Your task to perform on an android device: check battery use Image 0: 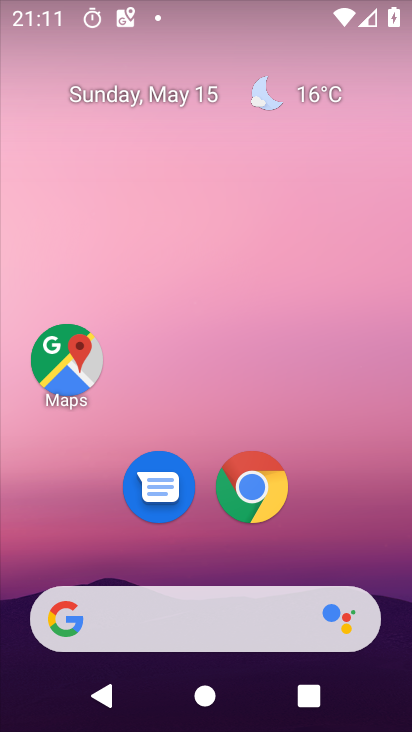
Step 0: click (399, 647)
Your task to perform on an android device: check battery use Image 1: 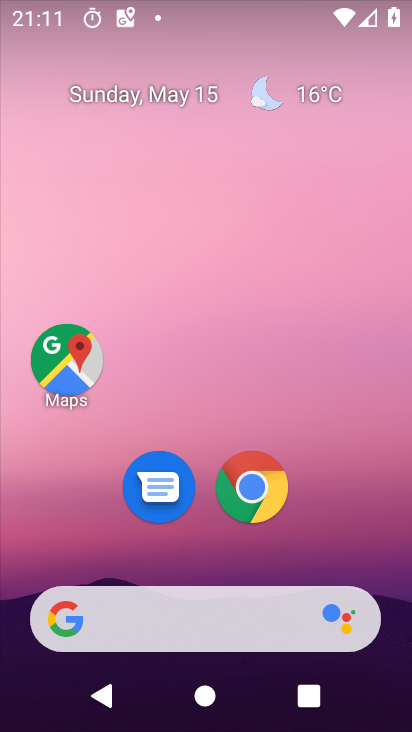
Step 1: drag from (395, 651) to (376, 285)
Your task to perform on an android device: check battery use Image 2: 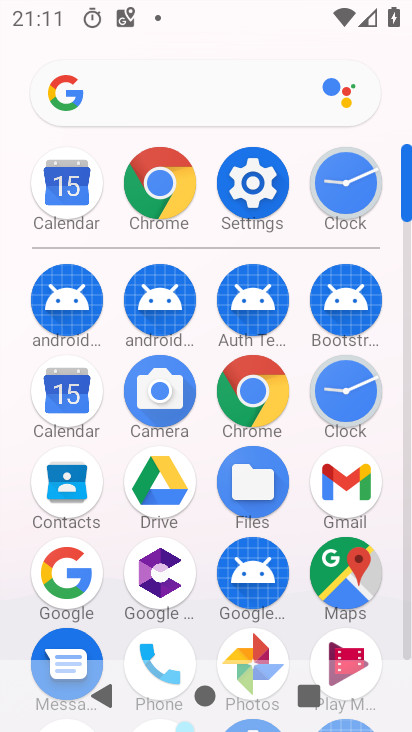
Step 2: click (245, 184)
Your task to perform on an android device: check battery use Image 3: 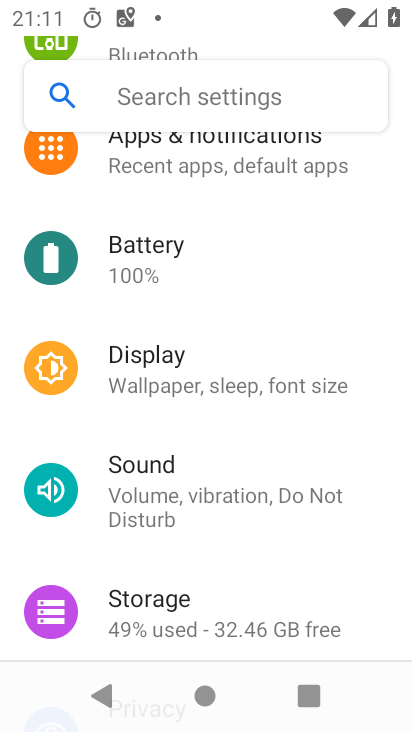
Step 3: click (145, 259)
Your task to perform on an android device: check battery use Image 4: 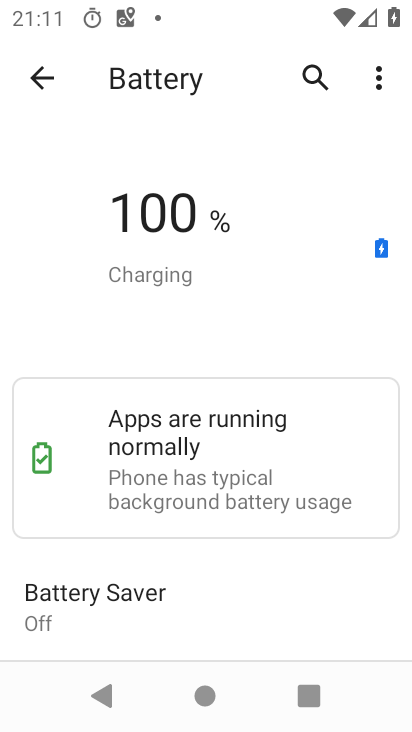
Step 4: click (379, 71)
Your task to perform on an android device: check battery use Image 5: 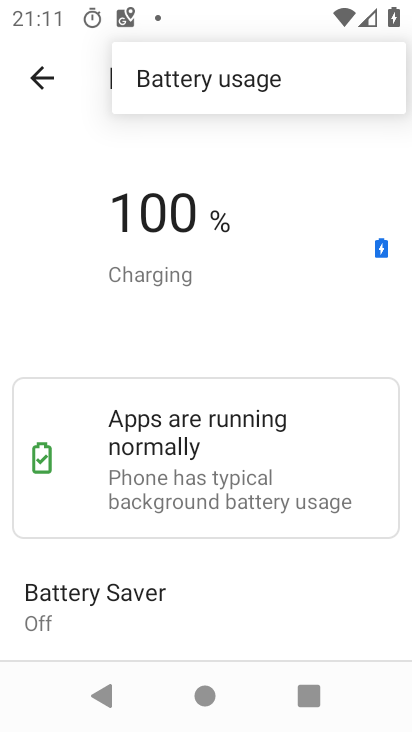
Step 5: click (220, 79)
Your task to perform on an android device: check battery use Image 6: 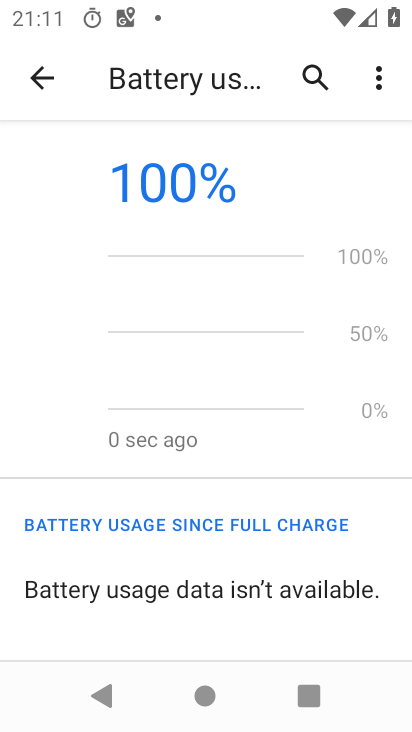
Step 6: task complete